Your task to perform on an android device: turn notification dots off Image 0: 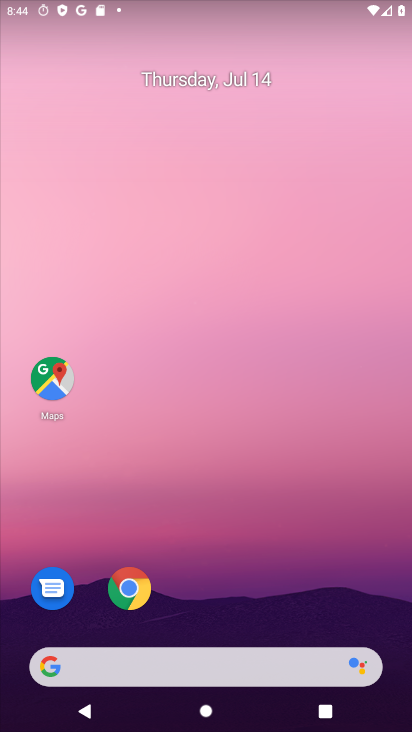
Step 0: drag from (338, 590) to (324, 223)
Your task to perform on an android device: turn notification dots off Image 1: 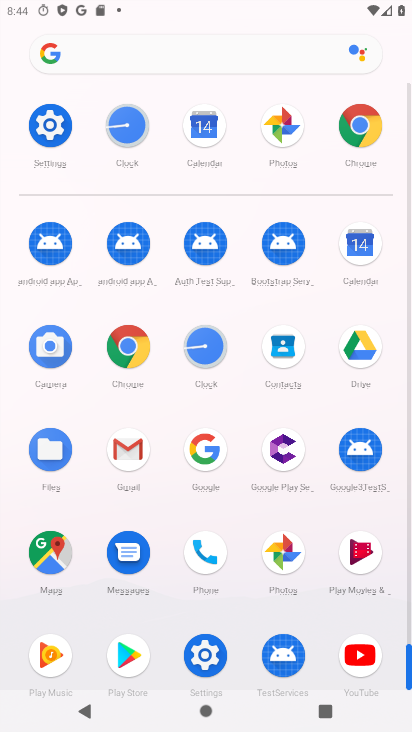
Step 1: click (54, 119)
Your task to perform on an android device: turn notification dots off Image 2: 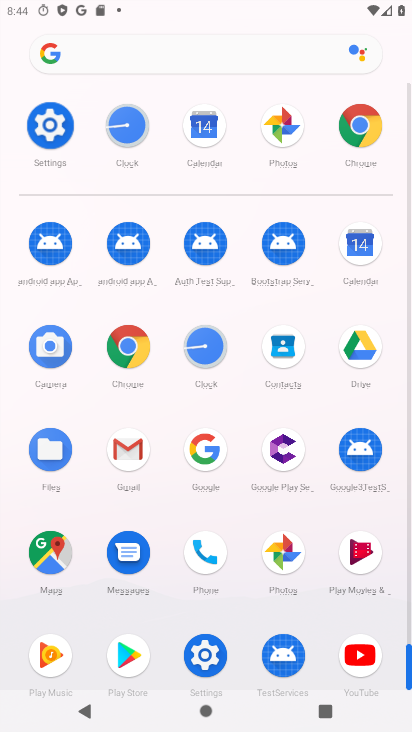
Step 2: click (54, 118)
Your task to perform on an android device: turn notification dots off Image 3: 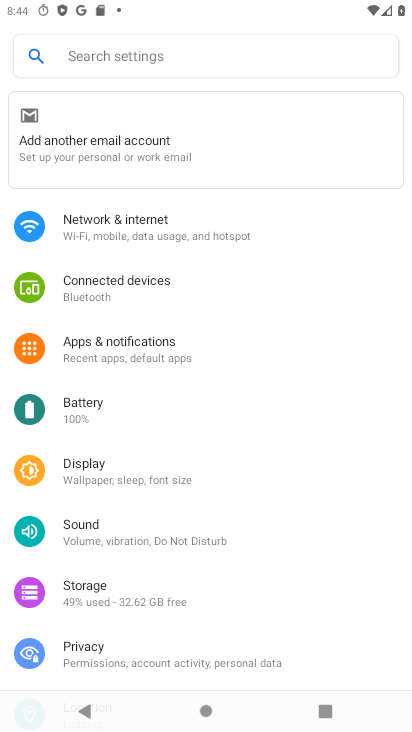
Step 3: click (97, 342)
Your task to perform on an android device: turn notification dots off Image 4: 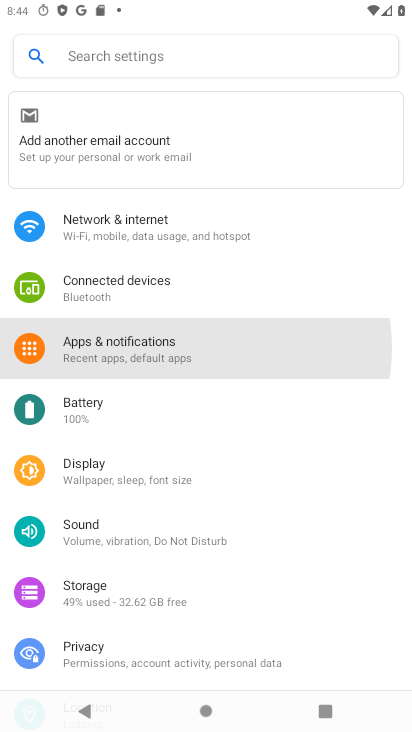
Step 4: click (97, 342)
Your task to perform on an android device: turn notification dots off Image 5: 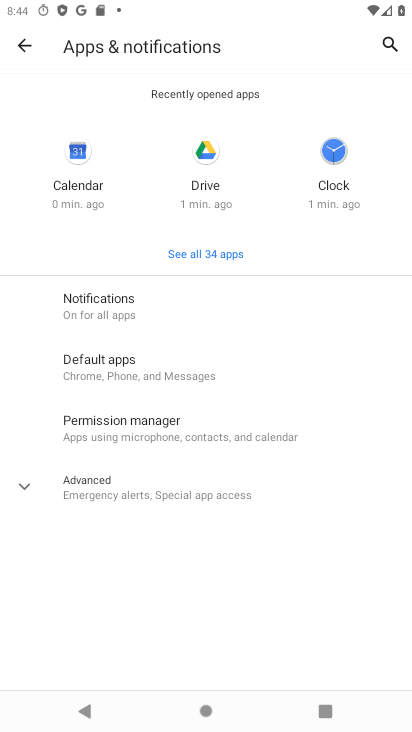
Step 5: click (84, 316)
Your task to perform on an android device: turn notification dots off Image 6: 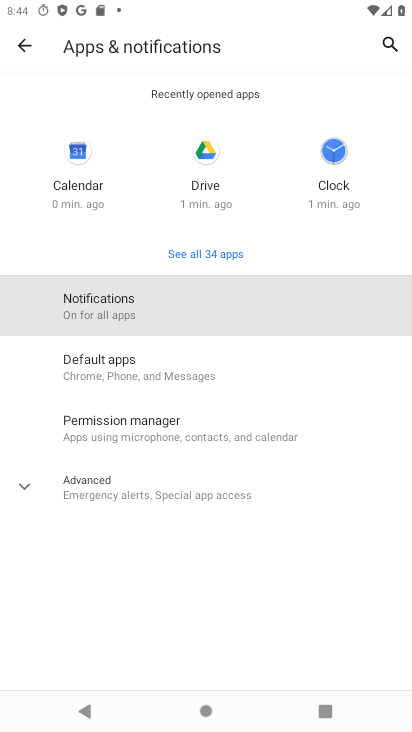
Step 6: click (93, 321)
Your task to perform on an android device: turn notification dots off Image 7: 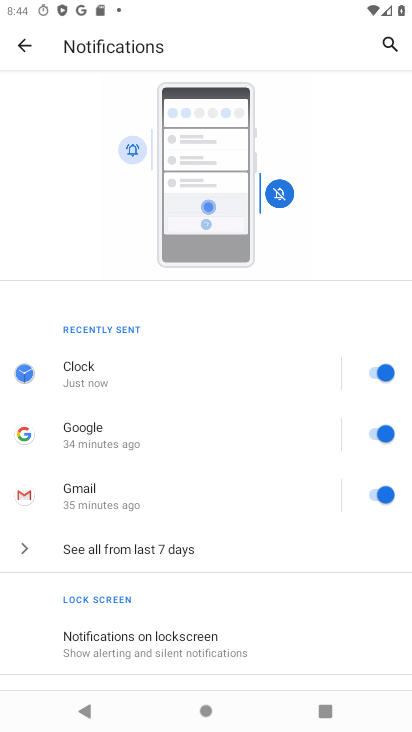
Step 7: drag from (133, 650) to (128, 420)
Your task to perform on an android device: turn notification dots off Image 8: 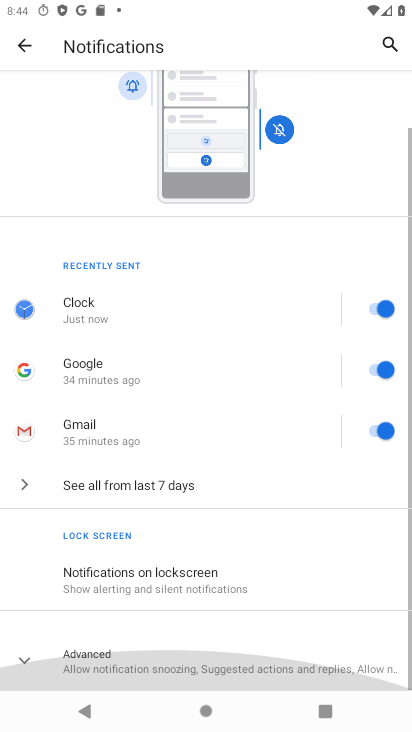
Step 8: drag from (212, 587) to (200, 285)
Your task to perform on an android device: turn notification dots off Image 9: 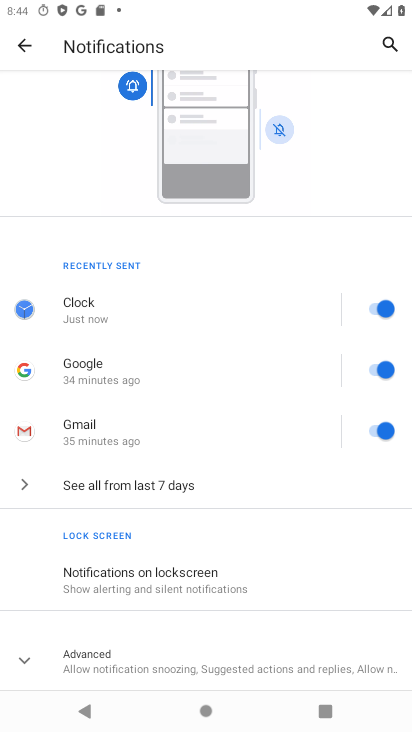
Step 9: click (104, 671)
Your task to perform on an android device: turn notification dots off Image 10: 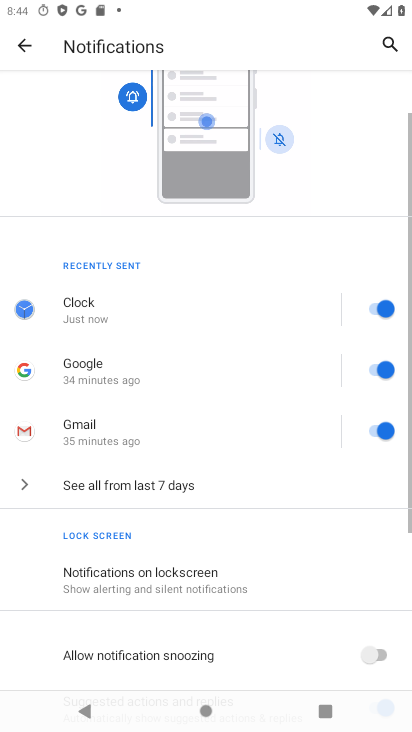
Step 10: task complete